Your task to perform on an android device: Add usb-b to the cart on amazon Image 0: 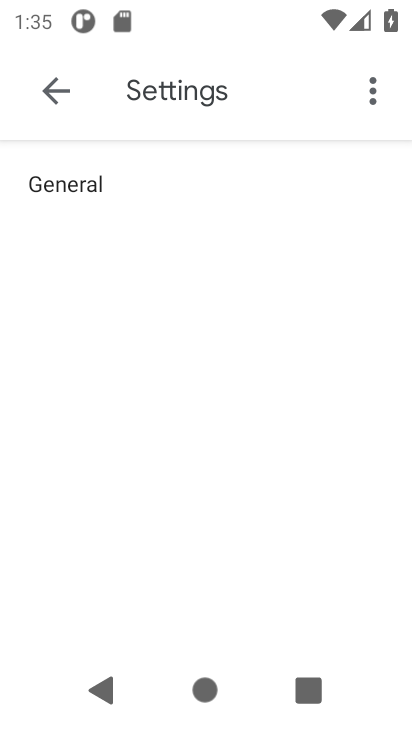
Step 0: press home button
Your task to perform on an android device: Add usb-b to the cart on amazon Image 1: 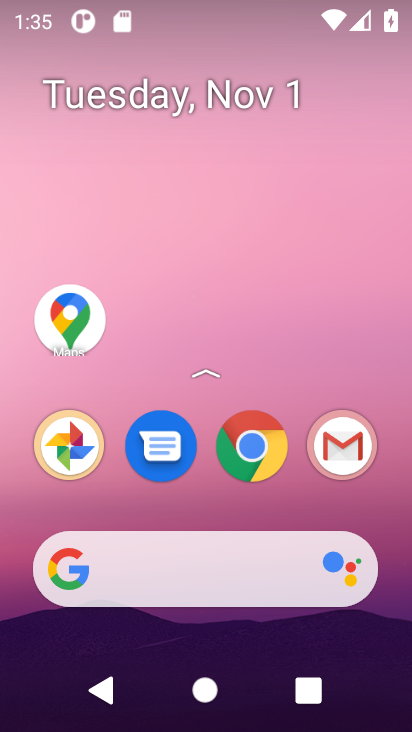
Step 1: click (250, 447)
Your task to perform on an android device: Add usb-b to the cart on amazon Image 2: 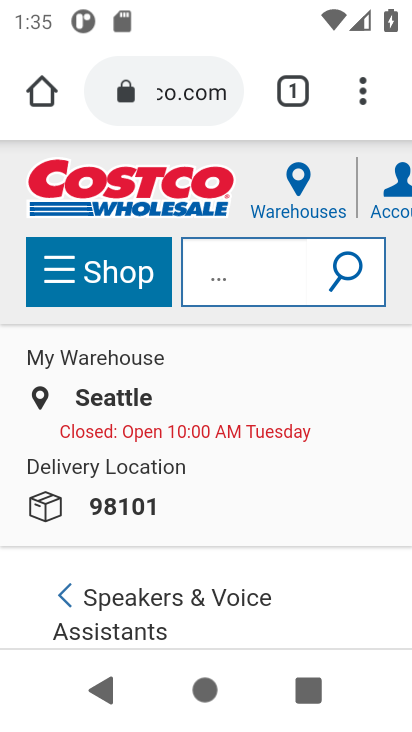
Step 2: click (176, 64)
Your task to perform on an android device: Add usb-b to the cart on amazon Image 3: 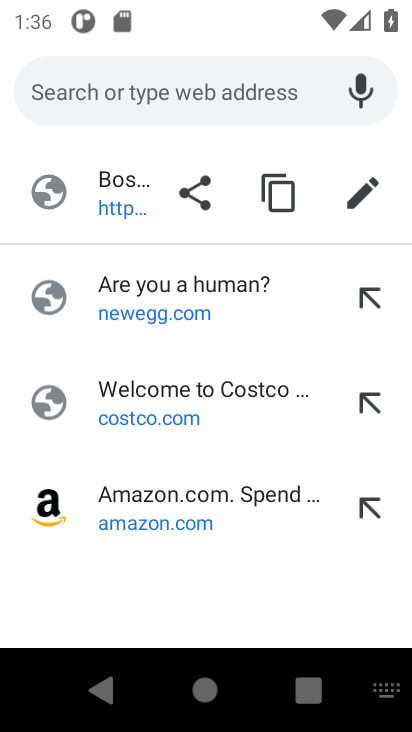
Step 3: click (118, 497)
Your task to perform on an android device: Add usb-b to the cart on amazon Image 4: 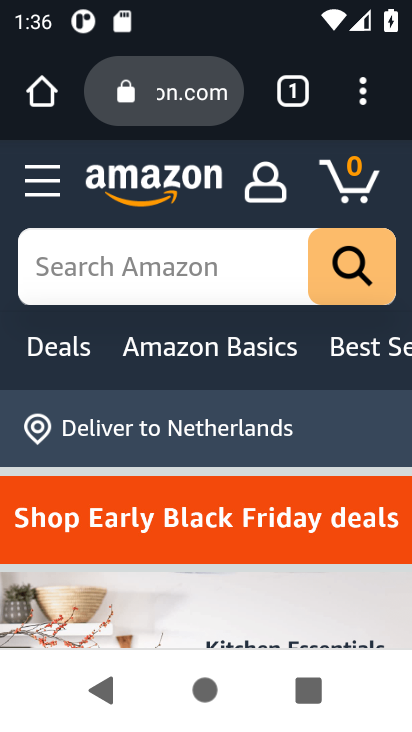
Step 4: click (95, 253)
Your task to perform on an android device: Add usb-b to the cart on amazon Image 5: 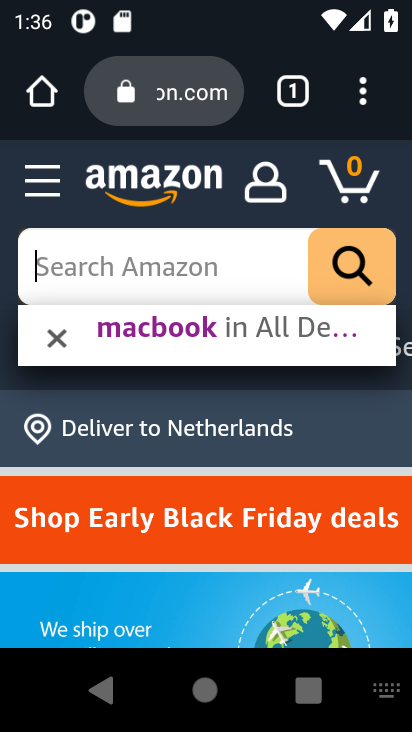
Step 5: type "usb-b"
Your task to perform on an android device: Add usb-b to the cart on amazon Image 6: 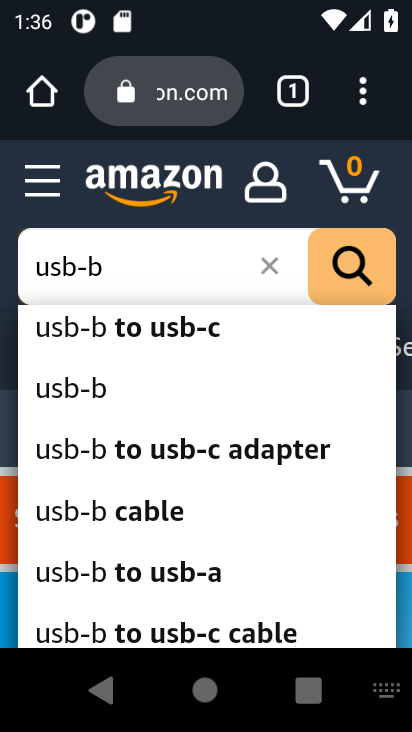
Step 6: click (81, 391)
Your task to perform on an android device: Add usb-b to the cart on amazon Image 7: 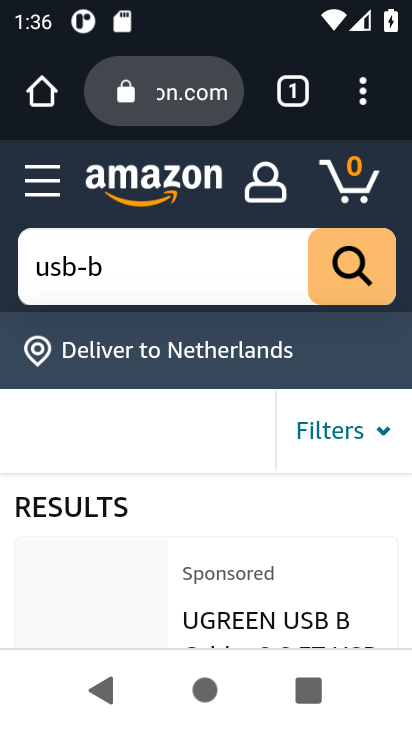
Step 7: drag from (153, 549) to (161, 197)
Your task to perform on an android device: Add usb-b to the cart on amazon Image 8: 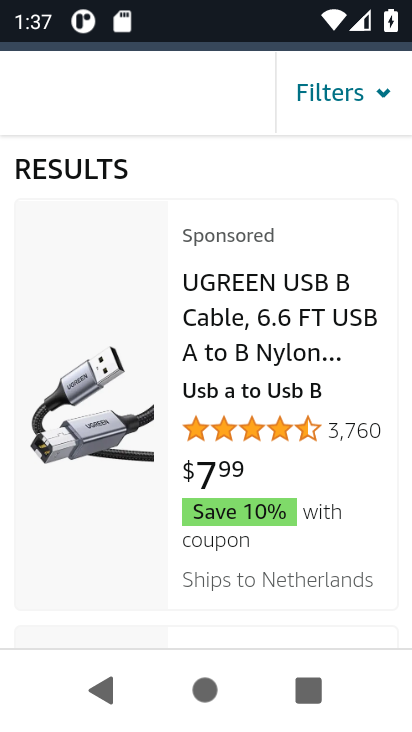
Step 8: click (231, 312)
Your task to perform on an android device: Add usb-b to the cart on amazon Image 9: 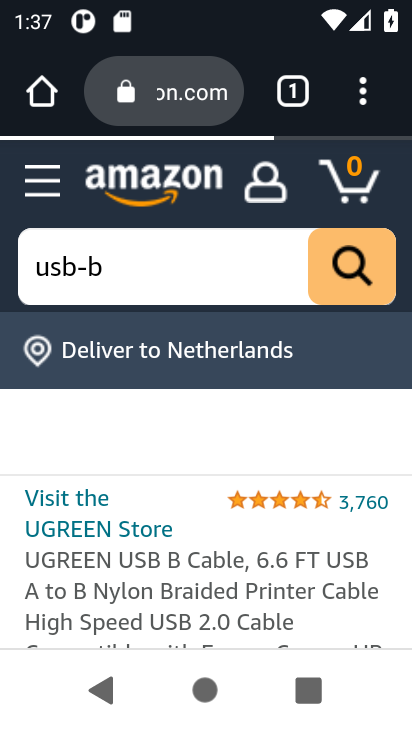
Step 9: drag from (272, 576) to (231, 324)
Your task to perform on an android device: Add usb-b to the cart on amazon Image 10: 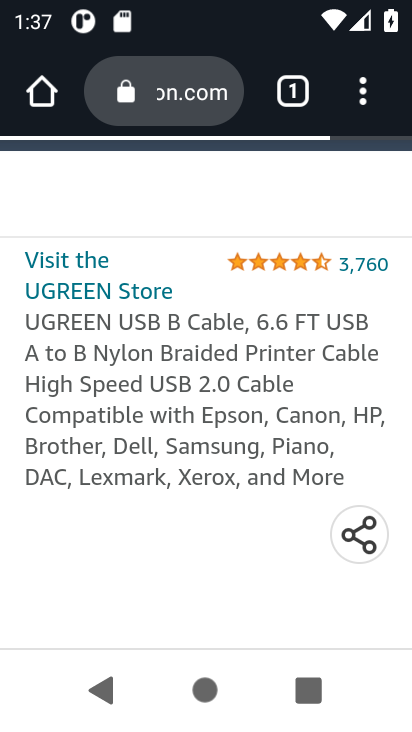
Step 10: drag from (261, 610) to (219, 344)
Your task to perform on an android device: Add usb-b to the cart on amazon Image 11: 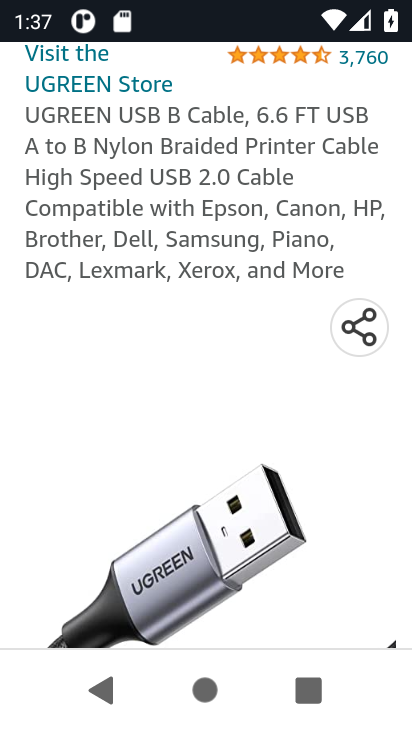
Step 11: drag from (223, 575) to (204, 287)
Your task to perform on an android device: Add usb-b to the cart on amazon Image 12: 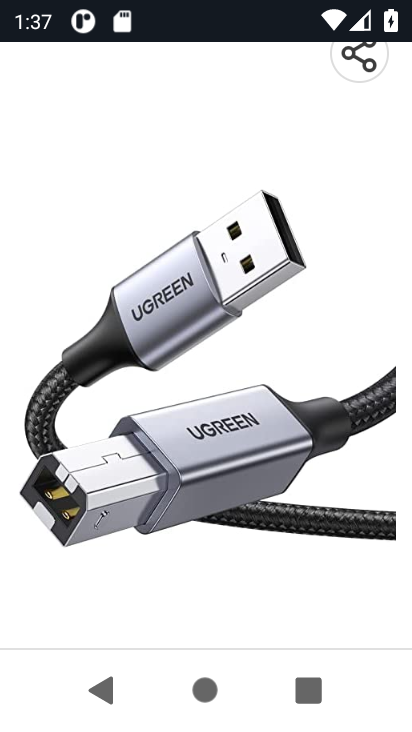
Step 12: drag from (214, 587) to (194, 258)
Your task to perform on an android device: Add usb-b to the cart on amazon Image 13: 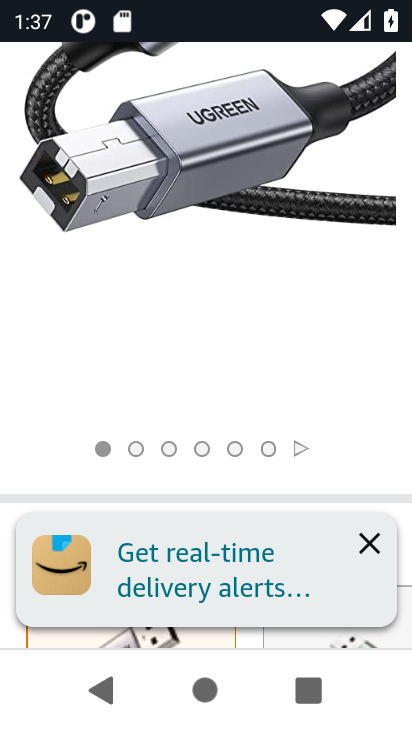
Step 13: drag from (214, 547) to (224, 251)
Your task to perform on an android device: Add usb-b to the cart on amazon Image 14: 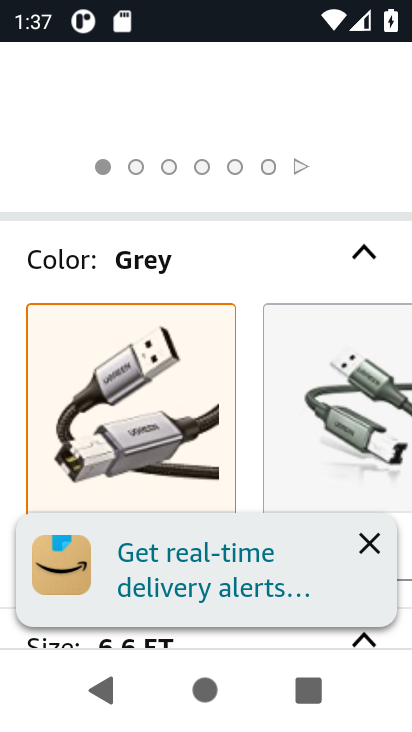
Step 14: drag from (223, 500) to (251, 105)
Your task to perform on an android device: Add usb-b to the cart on amazon Image 15: 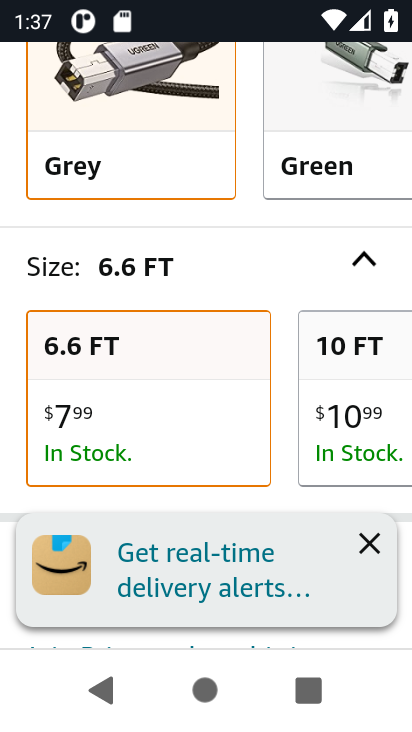
Step 15: click (368, 545)
Your task to perform on an android device: Add usb-b to the cart on amazon Image 16: 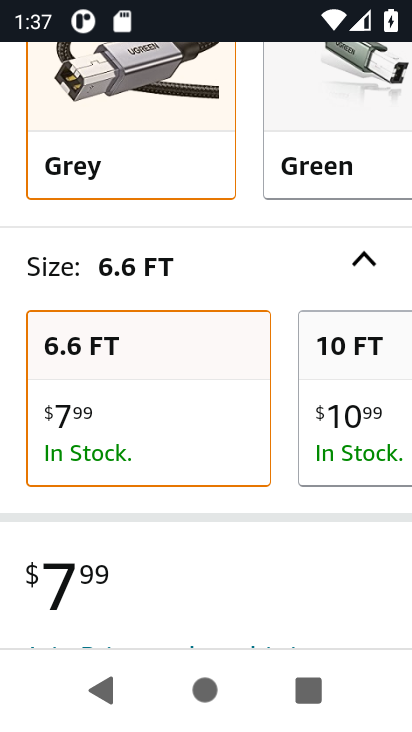
Step 16: drag from (219, 564) to (202, 164)
Your task to perform on an android device: Add usb-b to the cart on amazon Image 17: 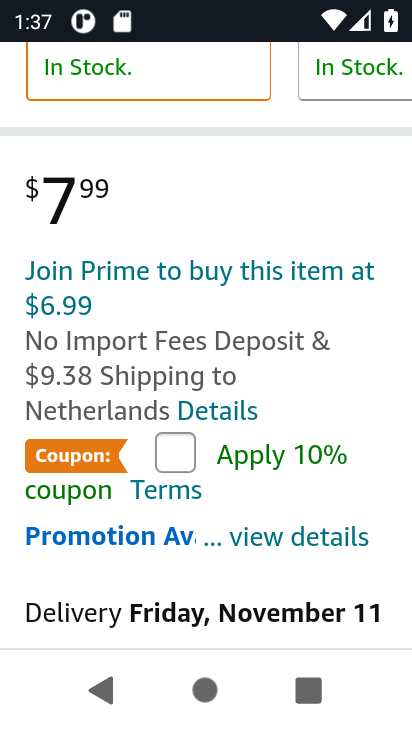
Step 17: drag from (247, 590) to (259, 231)
Your task to perform on an android device: Add usb-b to the cart on amazon Image 18: 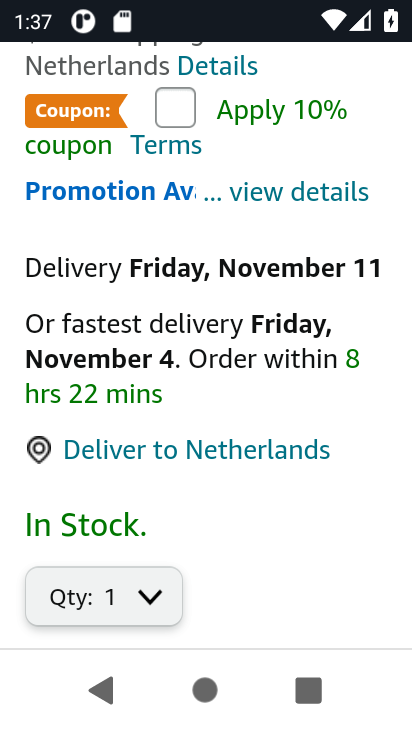
Step 18: drag from (291, 587) to (264, 239)
Your task to perform on an android device: Add usb-b to the cart on amazon Image 19: 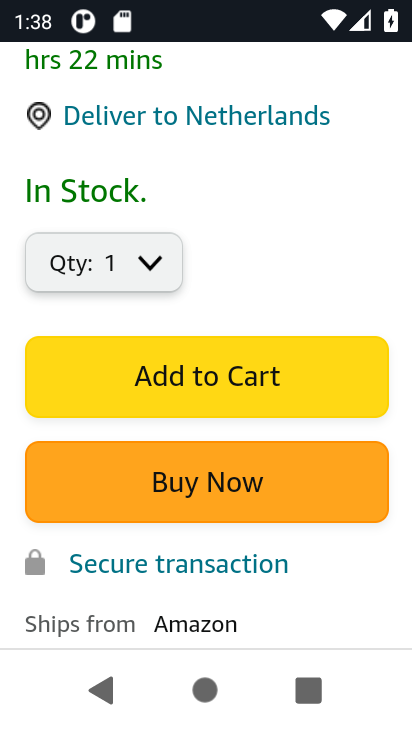
Step 19: click (209, 376)
Your task to perform on an android device: Add usb-b to the cart on amazon Image 20: 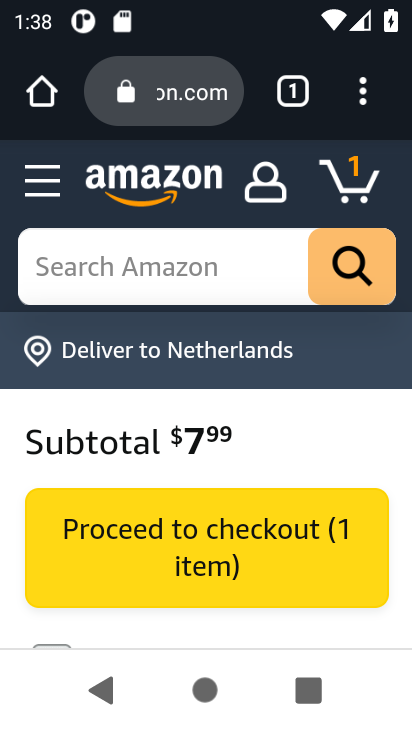
Step 20: task complete